Your task to perform on an android device: turn on the 24-hour format for clock Image 0: 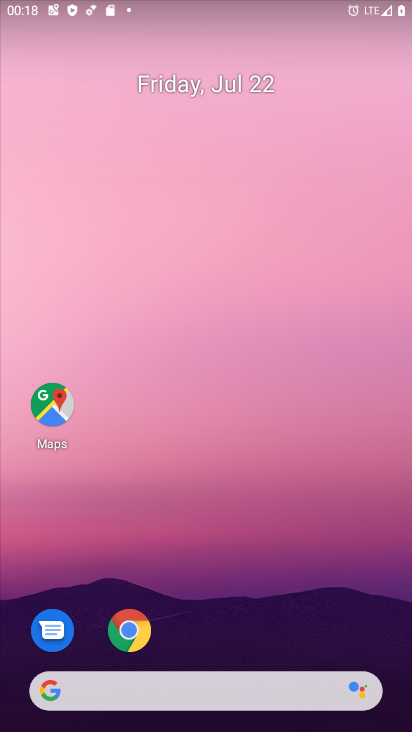
Step 0: drag from (205, 650) to (97, 120)
Your task to perform on an android device: turn on the 24-hour format for clock Image 1: 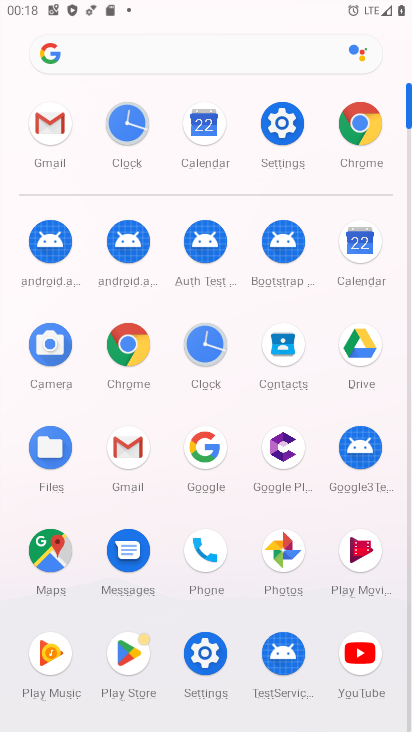
Step 1: click (122, 140)
Your task to perform on an android device: turn on the 24-hour format for clock Image 2: 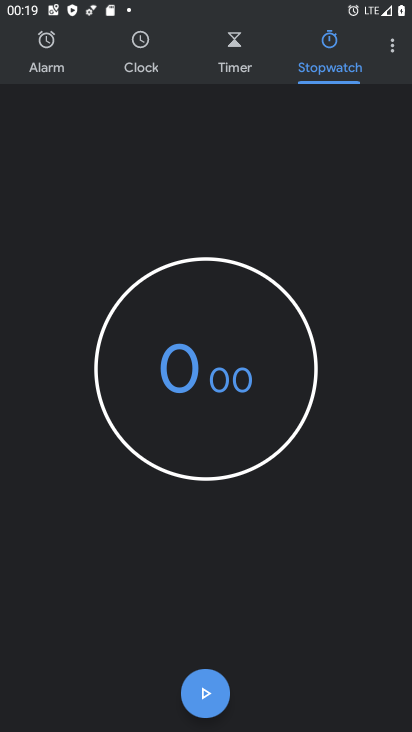
Step 2: click (394, 44)
Your task to perform on an android device: turn on the 24-hour format for clock Image 3: 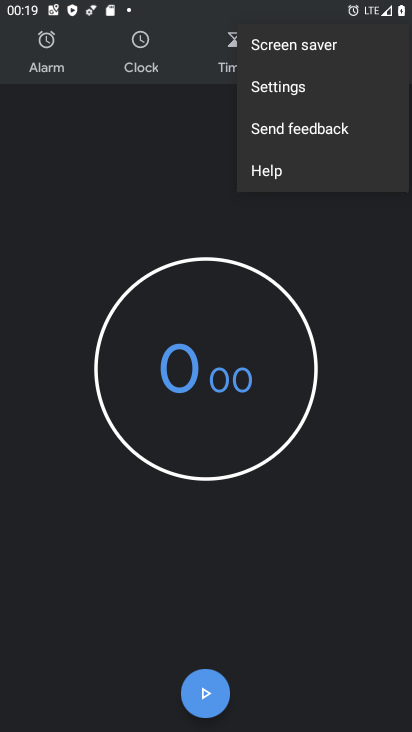
Step 3: click (301, 90)
Your task to perform on an android device: turn on the 24-hour format for clock Image 4: 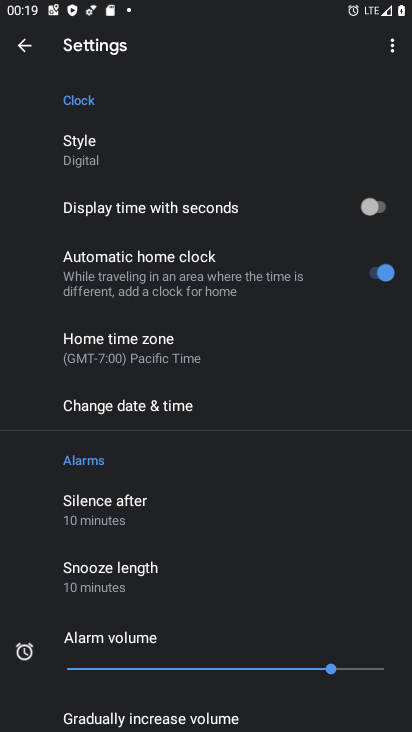
Step 4: click (147, 405)
Your task to perform on an android device: turn on the 24-hour format for clock Image 5: 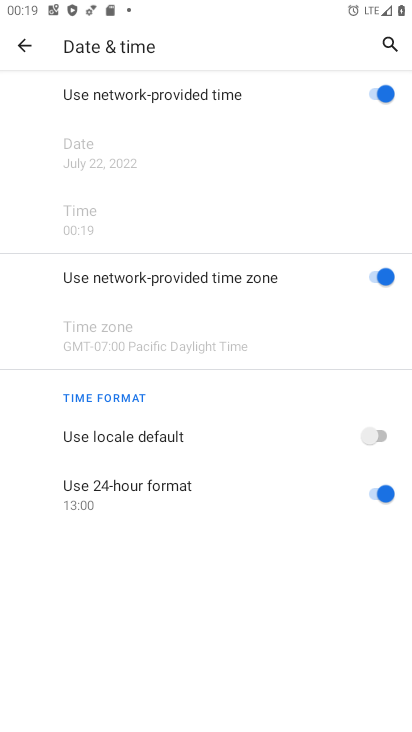
Step 5: task complete